Your task to perform on an android device: Go to Google maps Image 0: 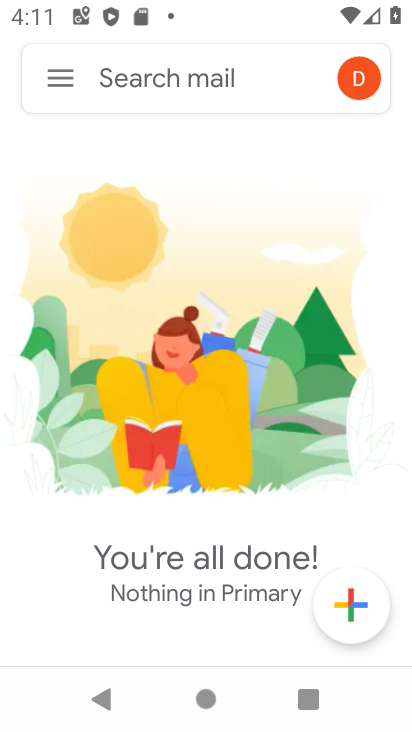
Step 0: press home button
Your task to perform on an android device: Go to Google maps Image 1: 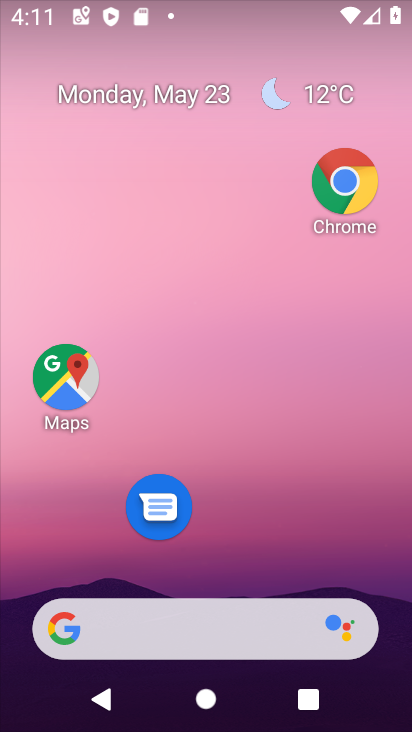
Step 1: click (56, 391)
Your task to perform on an android device: Go to Google maps Image 2: 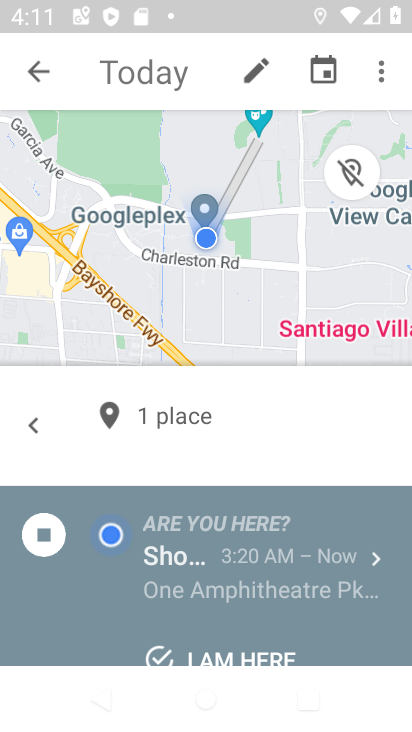
Step 2: task complete